Your task to perform on an android device: delete browsing data in the chrome app Image 0: 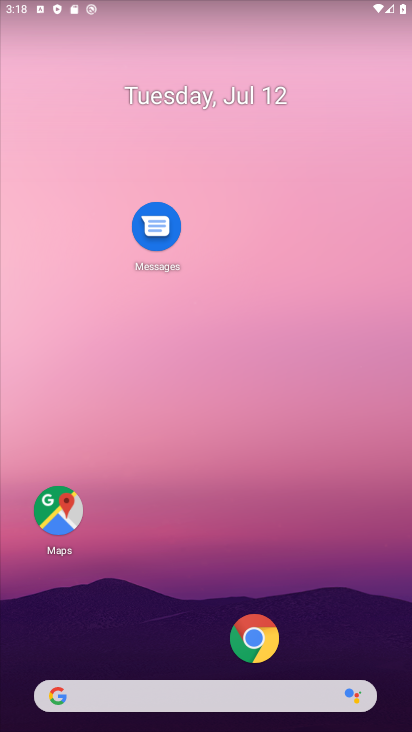
Step 0: click (263, 634)
Your task to perform on an android device: delete browsing data in the chrome app Image 1: 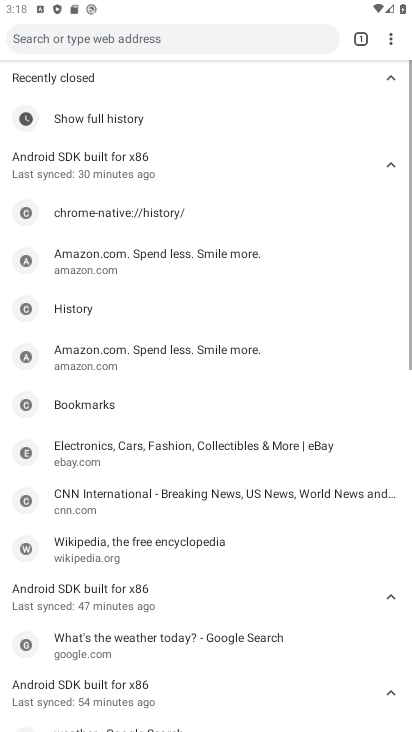
Step 1: click (391, 47)
Your task to perform on an android device: delete browsing data in the chrome app Image 2: 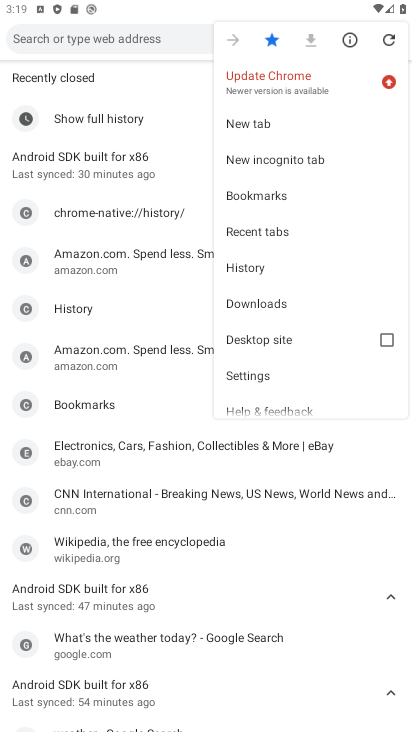
Step 2: click (263, 266)
Your task to perform on an android device: delete browsing data in the chrome app Image 3: 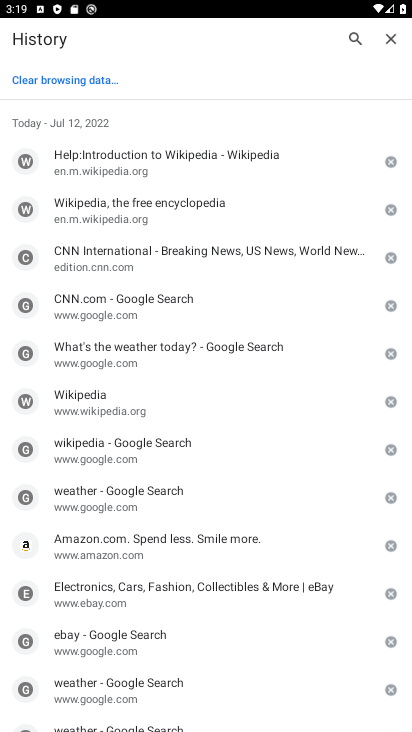
Step 3: click (33, 80)
Your task to perform on an android device: delete browsing data in the chrome app Image 4: 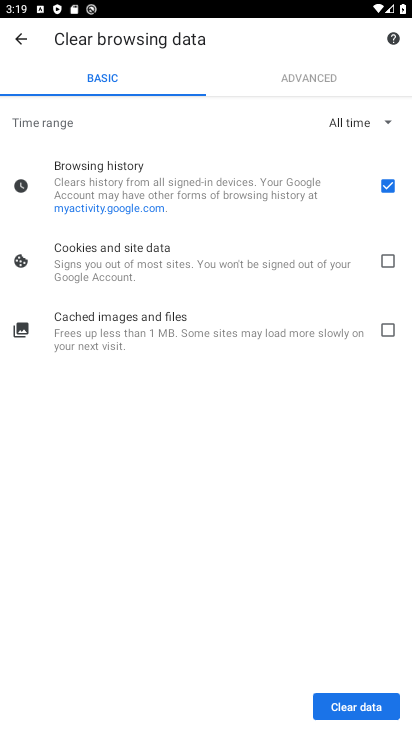
Step 4: click (373, 705)
Your task to perform on an android device: delete browsing data in the chrome app Image 5: 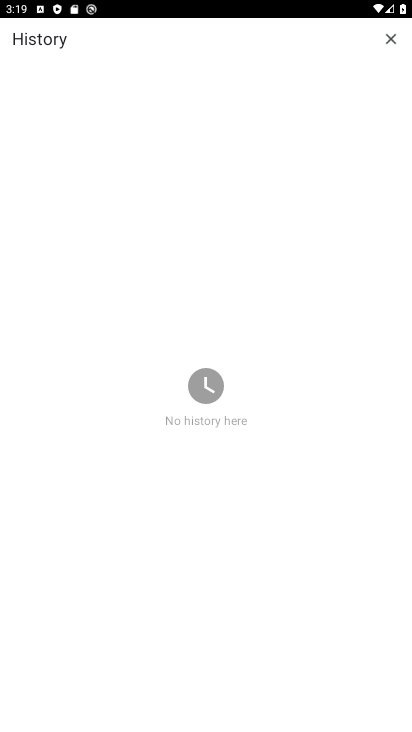
Step 5: click (373, 705)
Your task to perform on an android device: delete browsing data in the chrome app Image 6: 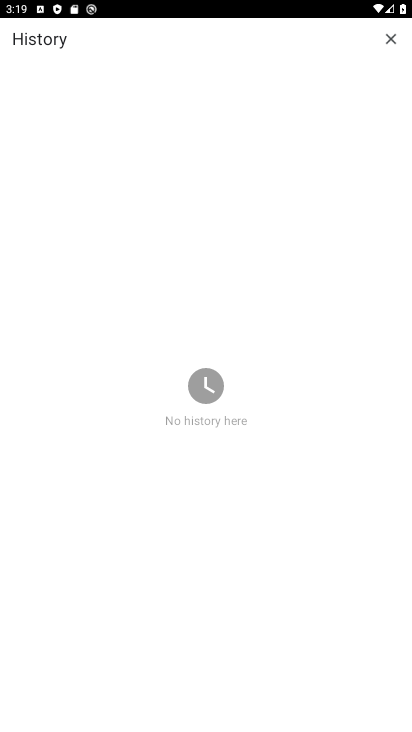
Step 6: task complete